Your task to perform on an android device: see tabs open on other devices in the chrome app Image 0: 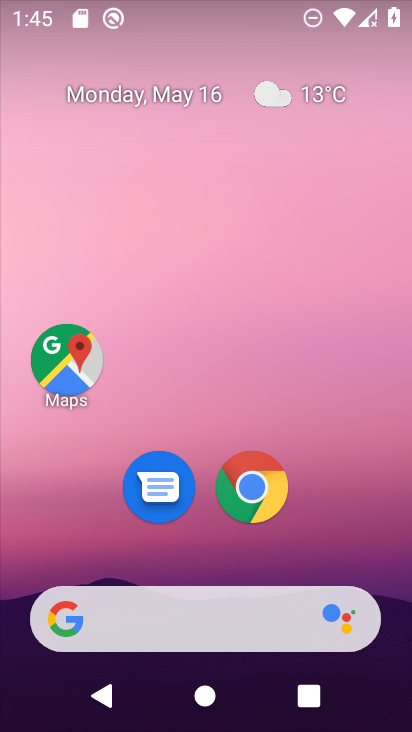
Step 0: click (244, 484)
Your task to perform on an android device: see tabs open on other devices in the chrome app Image 1: 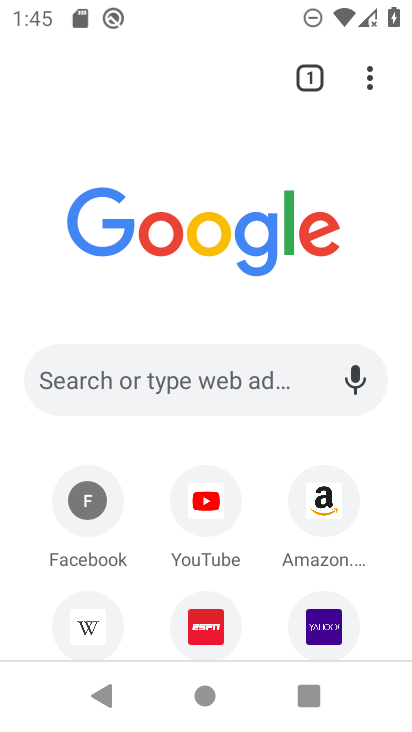
Step 1: click (367, 71)
Your task to perform on an android device: see tabs open on other devices in the chrome app Image 2: 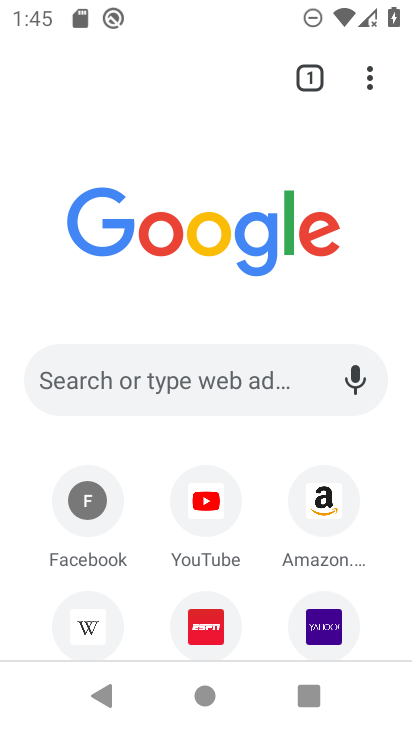
Step 2: click (367, 74)
Your task to perform on an android device: see tabs open on other devices in the chrome app Image 3: 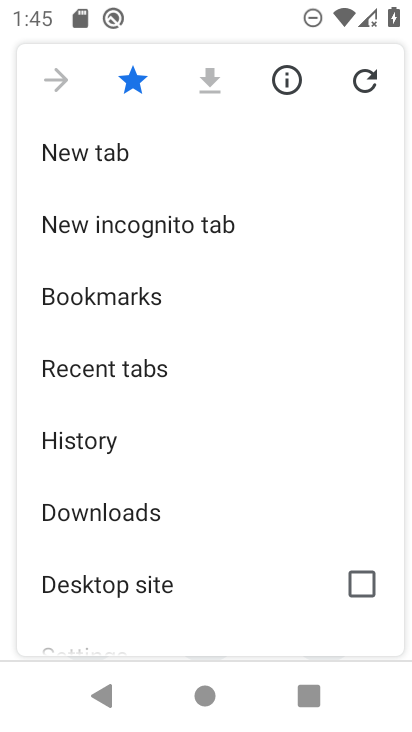
Step 3: click (77, 372)
Your task to perform on an android device: see tabs open on other devices in the chrome app Image 4: 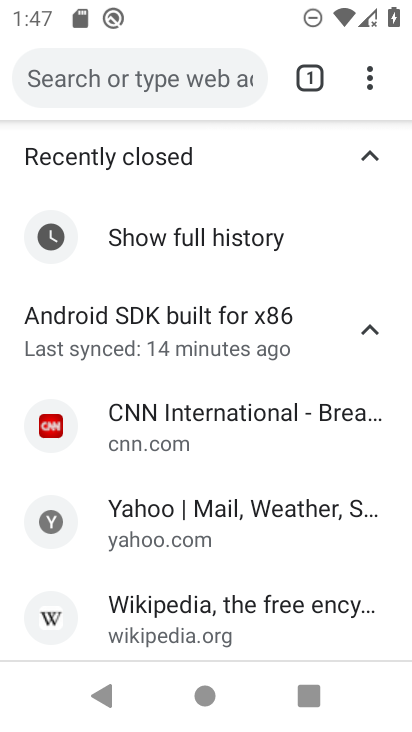
Step 4: task complete